Your task to perform on an android device: check storage Image 0: 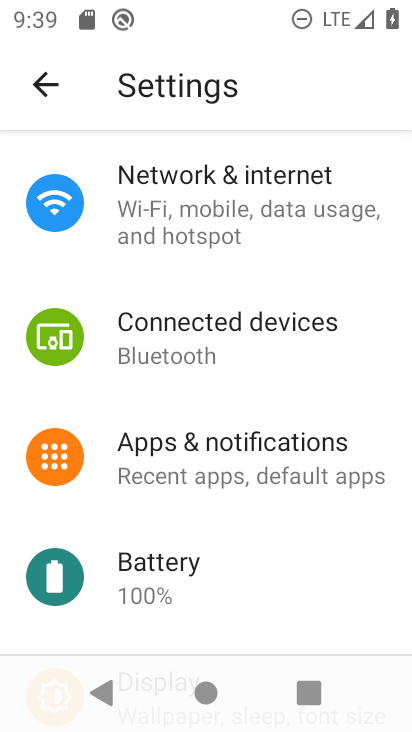
Step 0: drag from (172, 546) to (225, 22)
Your task to perform on an android device: check storage Image 1: 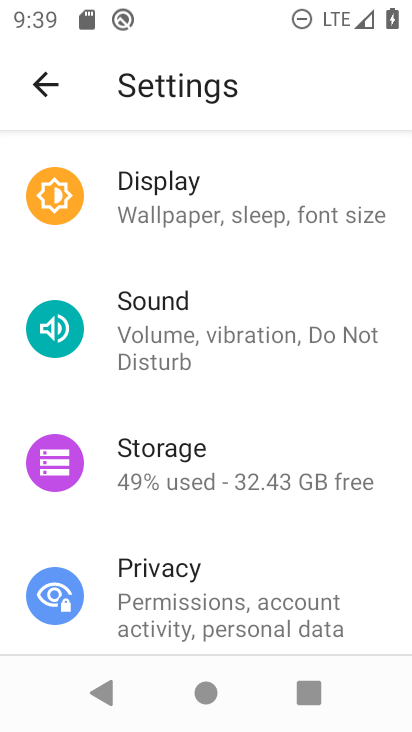
Step 1: click (157, 453)
Your task to perform on an android device: check storage Image 2: 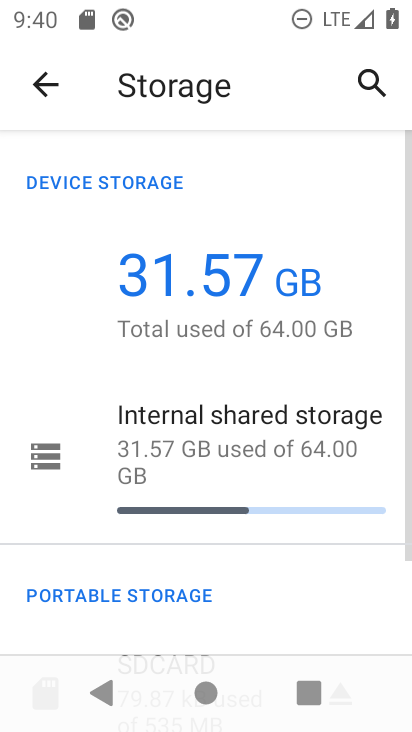
Step 2: task complete